Your task to perform on an android device: Open the phone app and click the voicemail tab. Image 0: 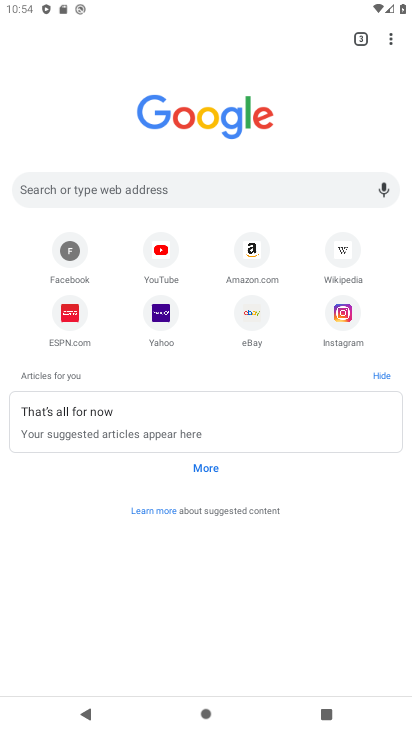
Step 0: press home button
Your task to perform on an android device: Open the phone app and click the voicemail tab. Image 1: 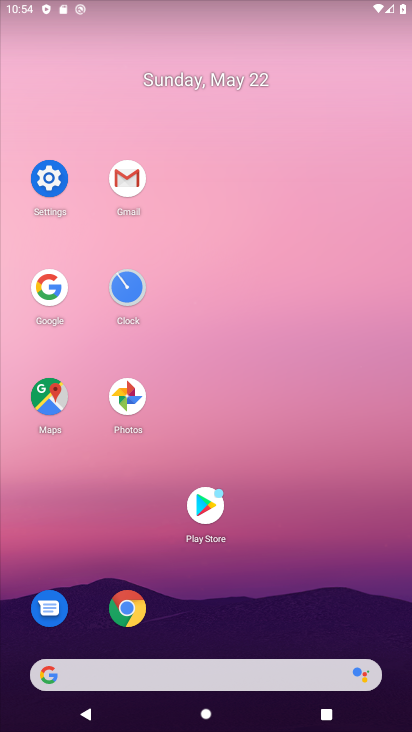
Step 1: drag from (280, 580) to (275, 176)
Your task to perform on an android device: Open the phone app and click the voicemail tab. Image 2: 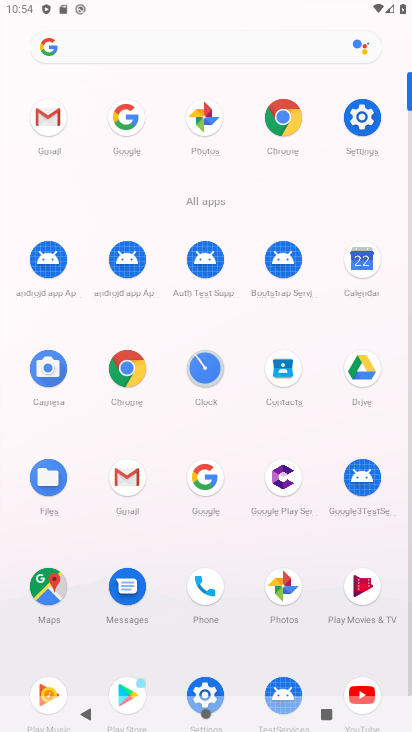
Step 2: click (198, 578)
Your task to perform on an android device: Open the phone app and click the voicemail tab. Image 3: 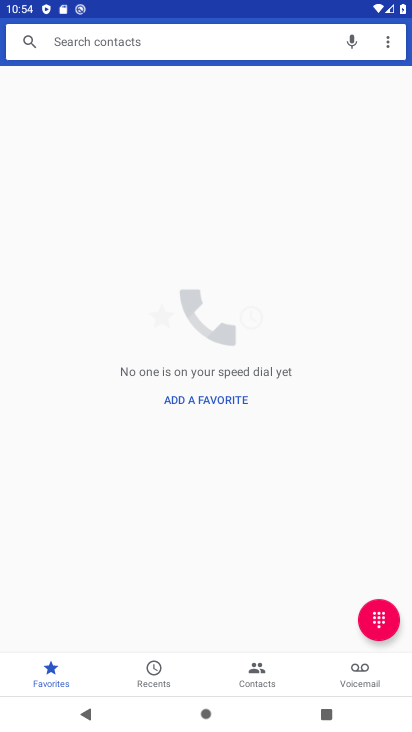
Step 3: click (369, 660)
Your task to perform on an android device: Open the phone app and click the voicemail tab. Image 4: 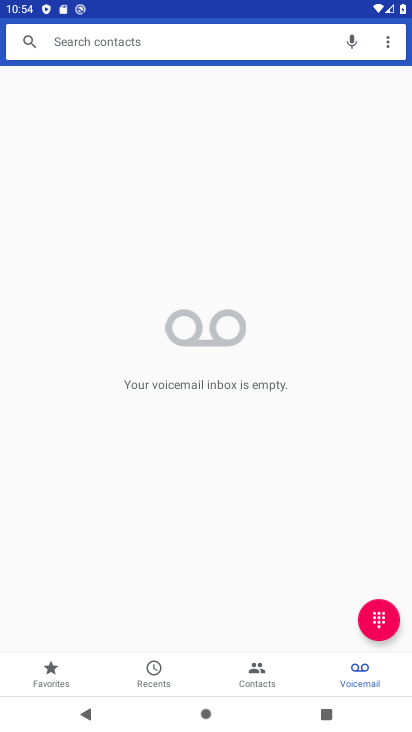
Step 4: task complete